Your task to perform on an android device: check the backup settings in the google photos Image 0: 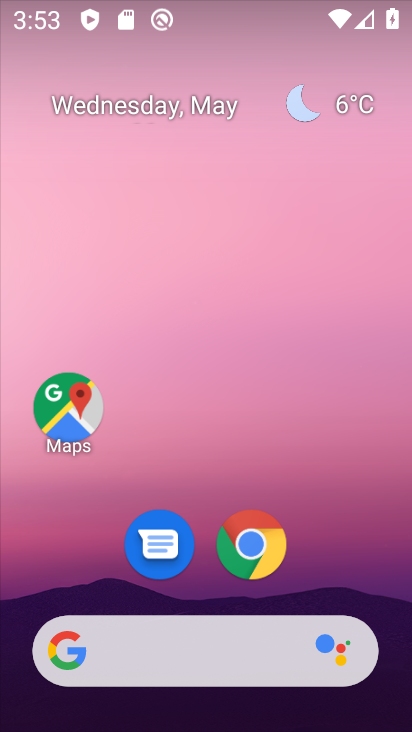
Step 0: task complete